Your task to perform on an android device: remove spam from my inbox in the gmail app Image 0: 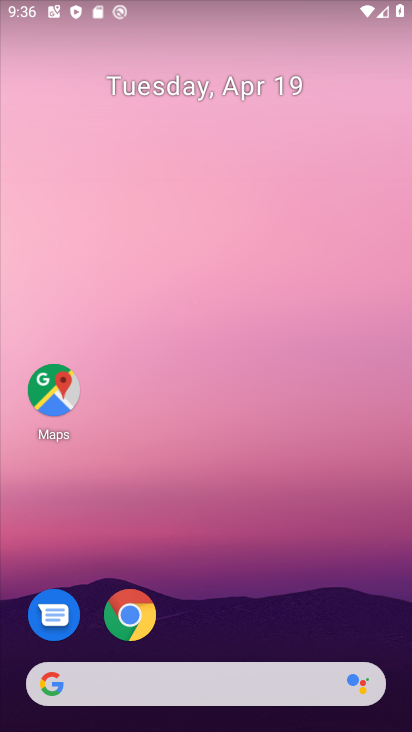
Step 0: drag from (194, 620) to (244, 126)
Your task to perform on an android device: remove spam from my inbox in the gmail app Image 1: 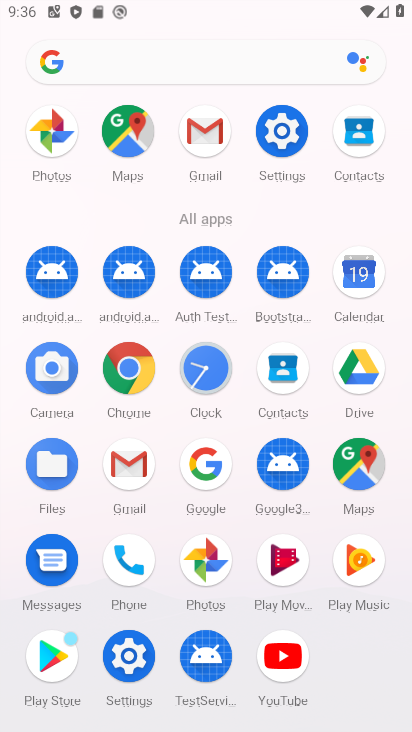
Step 1: click (126, 465)
Your task to perform on an android device: remove spam from my inbox in the gmail app Image 2: 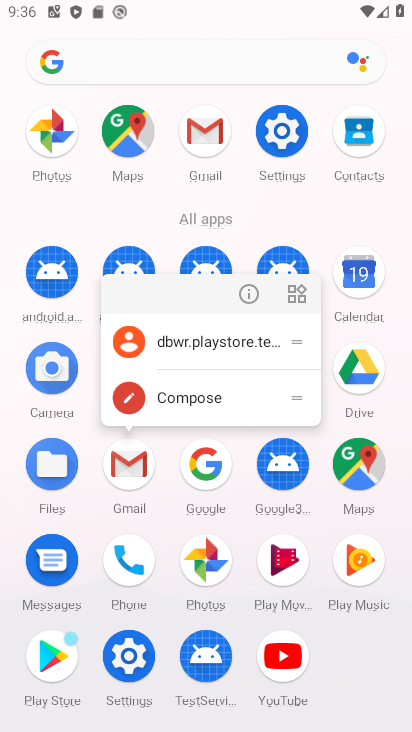
Step 2: click (252, 295)
Your task to perform on an android device: remove spam from my inbox in the gmail app Image 3: 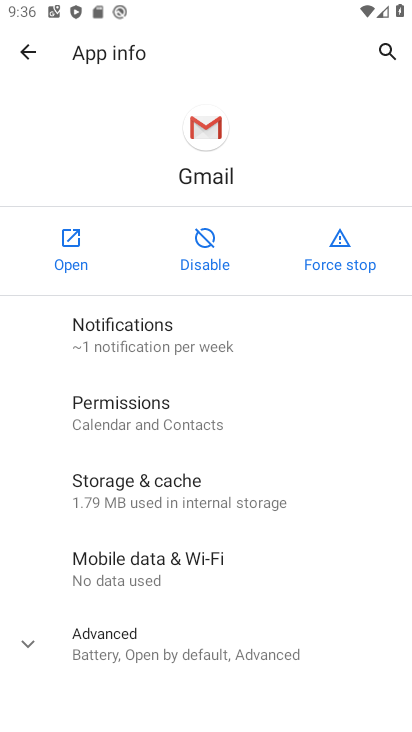
Step 3: click (77, 255)
Your task to perform on an android device: remove spam from my inbox in the gmail app Image 4: 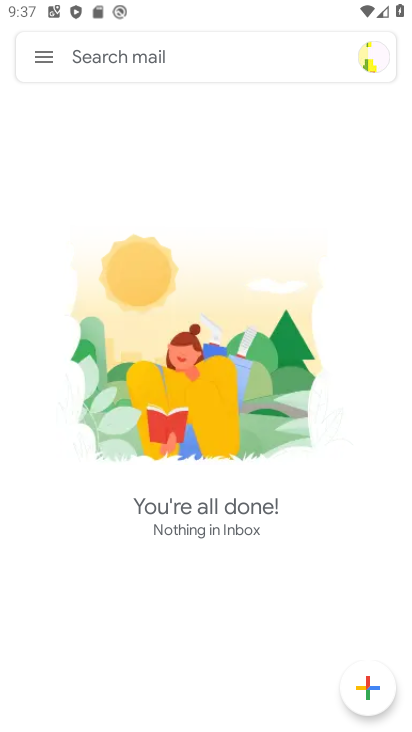
Step 4: click (285, 508)
Your task to perform on an android device: remove spam from my inbox in the gmail app Image 5: 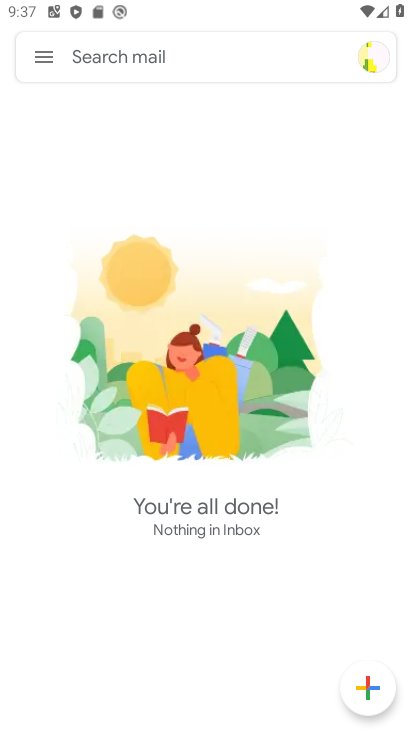
Step 5: click (37, 51)
Your task to perform on an android device: remove spam from my inbox in the gmail app Image 6: 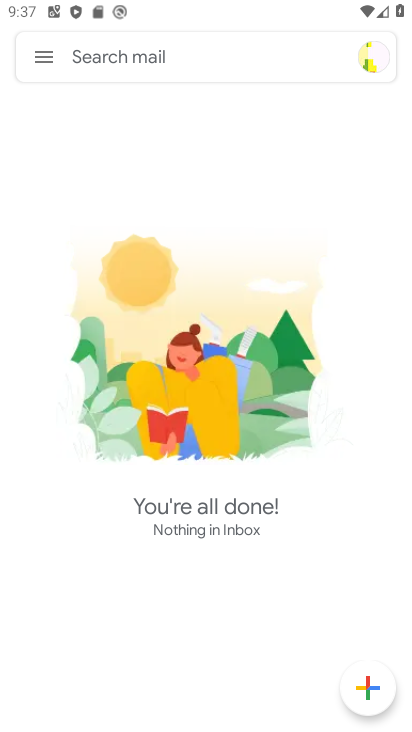
Step 6: click (51, 70)
Your task to perform on an android device: remove spam from my inbox in the gmail app Image 7: 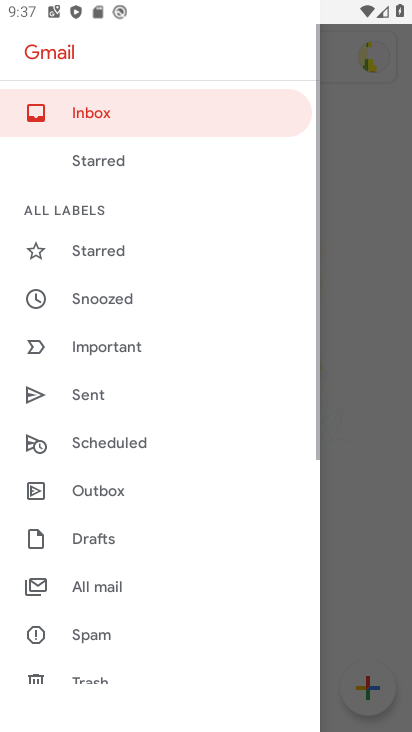
Step 7: drag from (173, 571) to (207, 216)
Your task to perform on an android device: remove spam from my inbox in the gmail app Image 8: 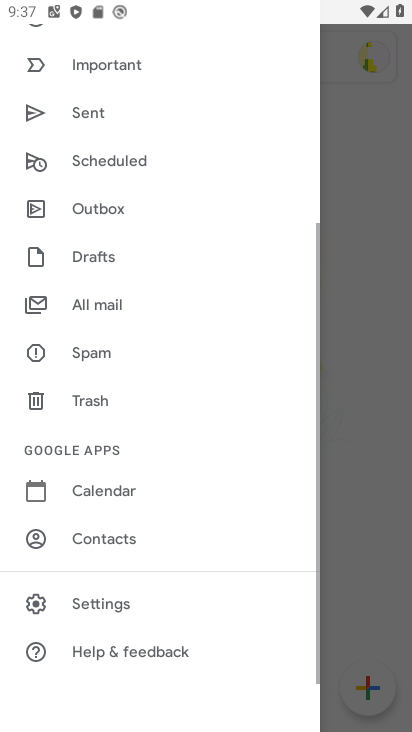
Step 8: click (113, 356)
Your task to perform on an android device: remove spam from my inbox in the gmail app Image 9: 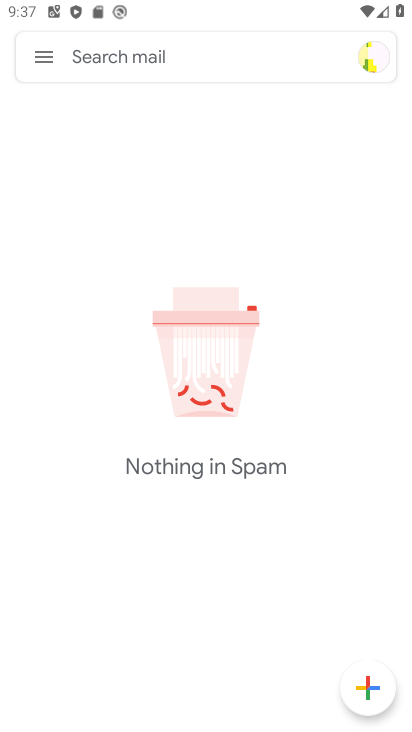
Step 9: drag from (234, 517) to (386, 168)
Your task to perform on an android device: remove spam from my inbox in the gmail app Image 10: 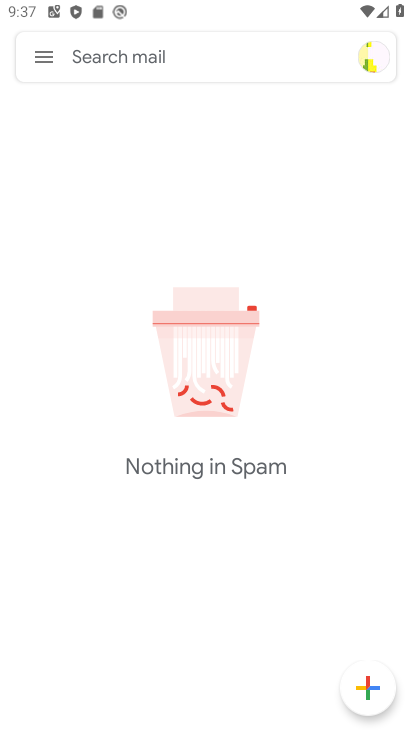
Step 10: drag from (171, 523) to (223, 265)
Your task to perform on an android device: remove spam from my inbox in the gmail app Image 11: 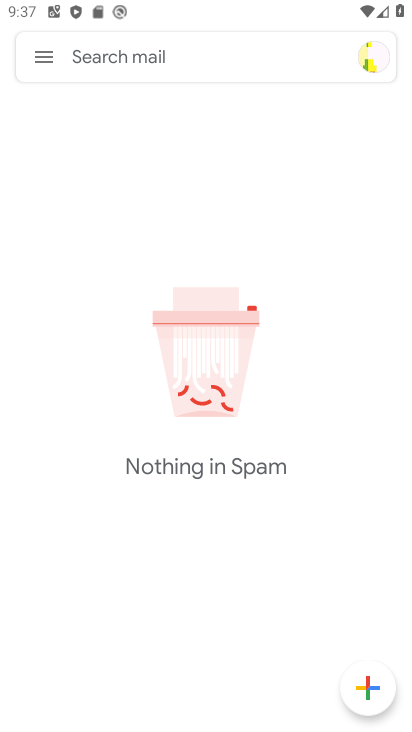
Step 11: click (223, 221)
Your task to perform on an android device: remove spam from my inbox in the gmail app Image 12: 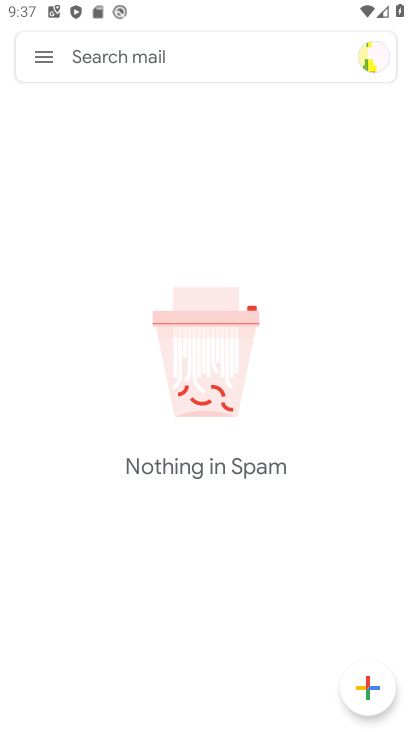
Step 12: click (147, 288)
Your task to perform on an android device: remove spam from my inbox in the gmail app Image 13: 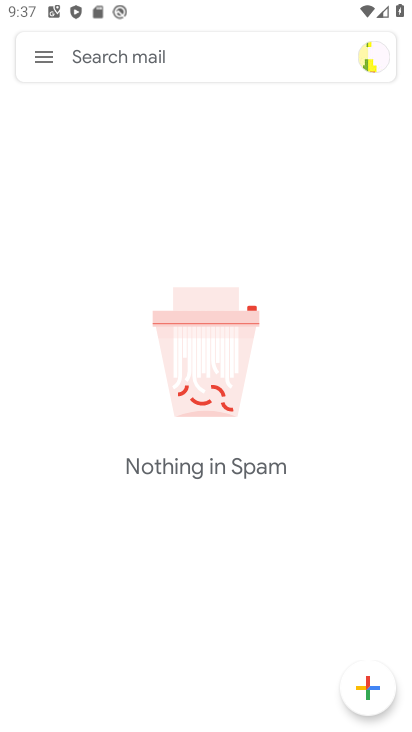
Step 13: task complete